Your task to perform on an android device: install app "Google Play services" Image 0: 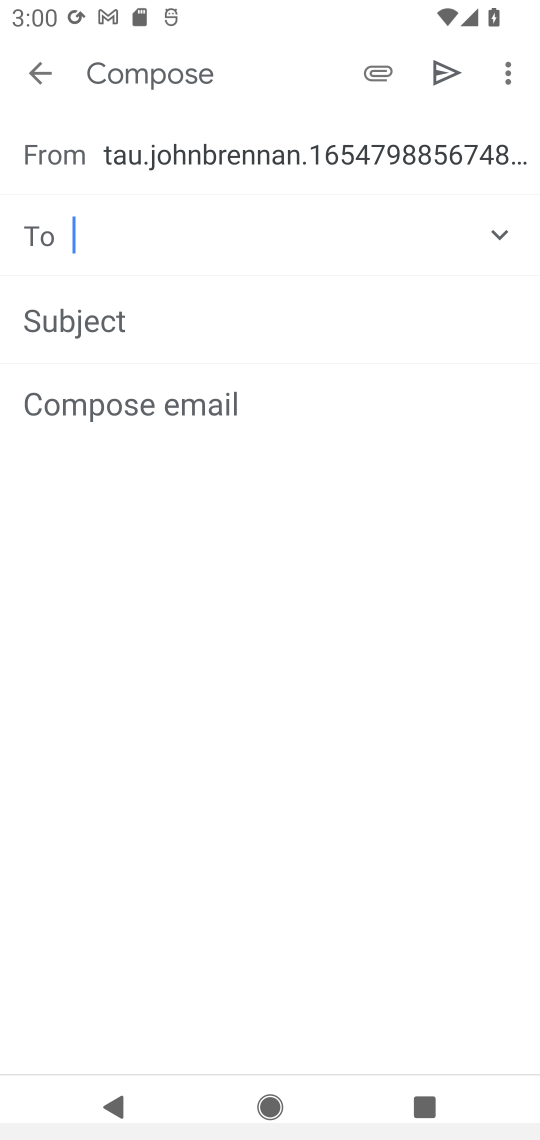
Step 0: press home button
Your task to perform on an android device: install app "Google Play services" Image 1: 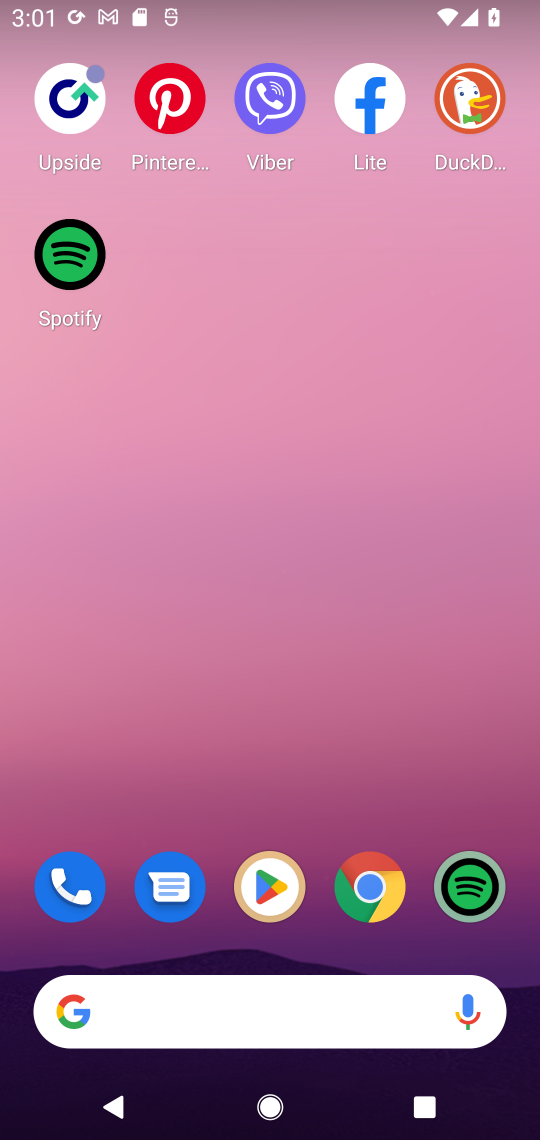
Step 1: drag from (17, 548) to (508, 572)
Your task to perform on an android device: install app "Google Play services" Image 2: 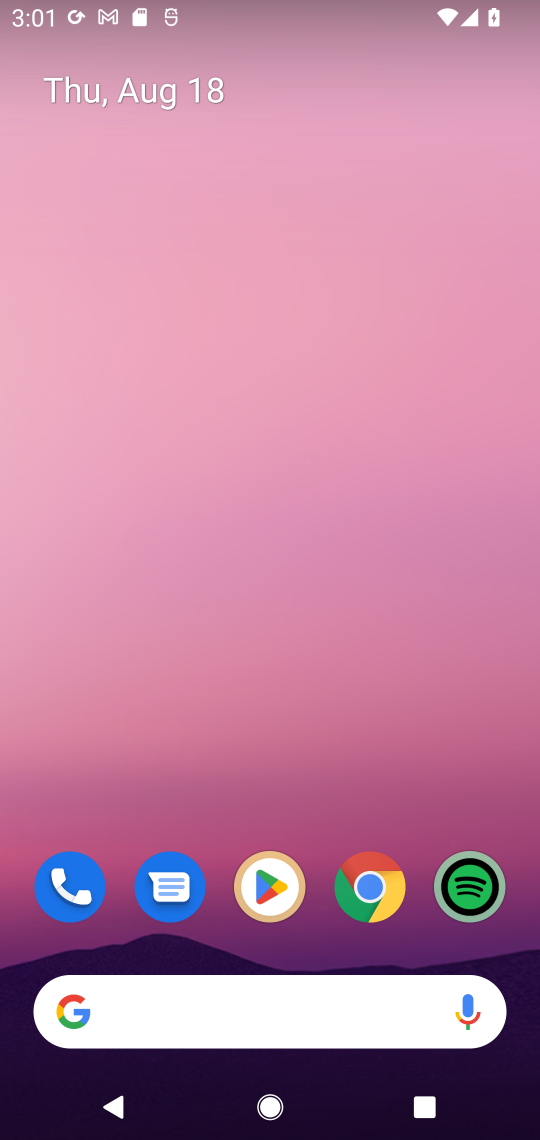
Step 2: click (259, 882)
Your task to perform on an android device: install app "Google Play services" Image 3: 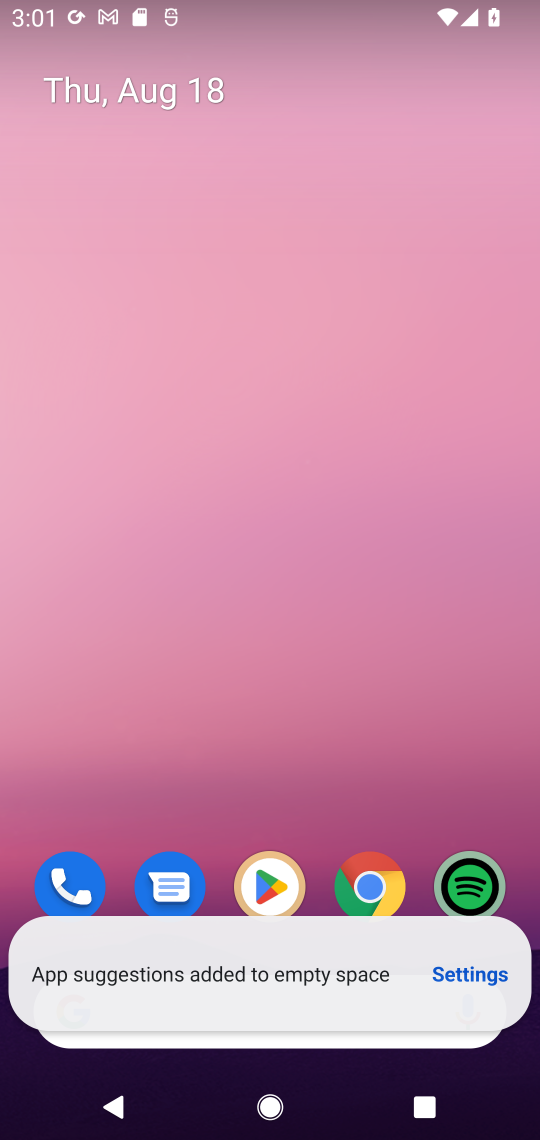
Step 3: click (267, 879)
Your task to perform on an android device: install app "Google Play services" Image 4: 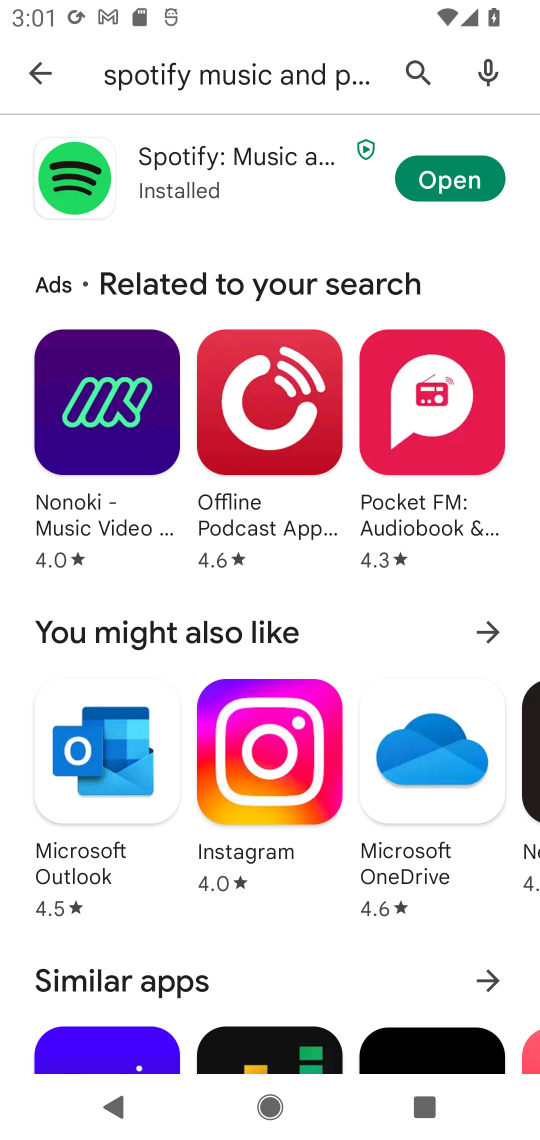
Step 4: click (413, 64)
Your task to perform on an android device: install app "Google Play services" Image 5: 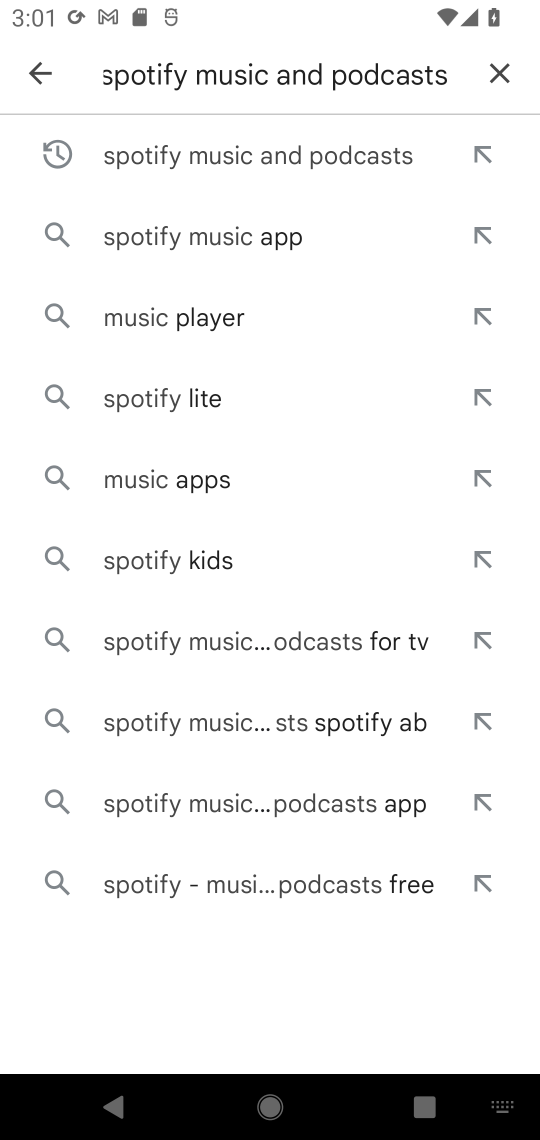
Step 5: click (498, 77)
Your task to perform on an android device: install app "Google Play services" Image 6: 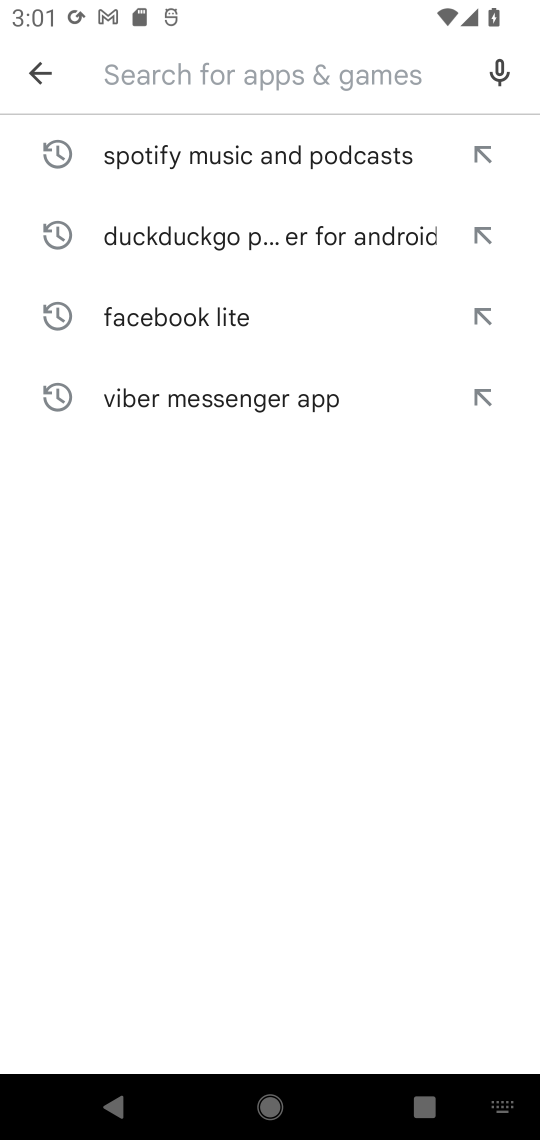
Step 6: type "Google Play services"
Your task to perform on an android device: install app "Google Play services" Image 7: 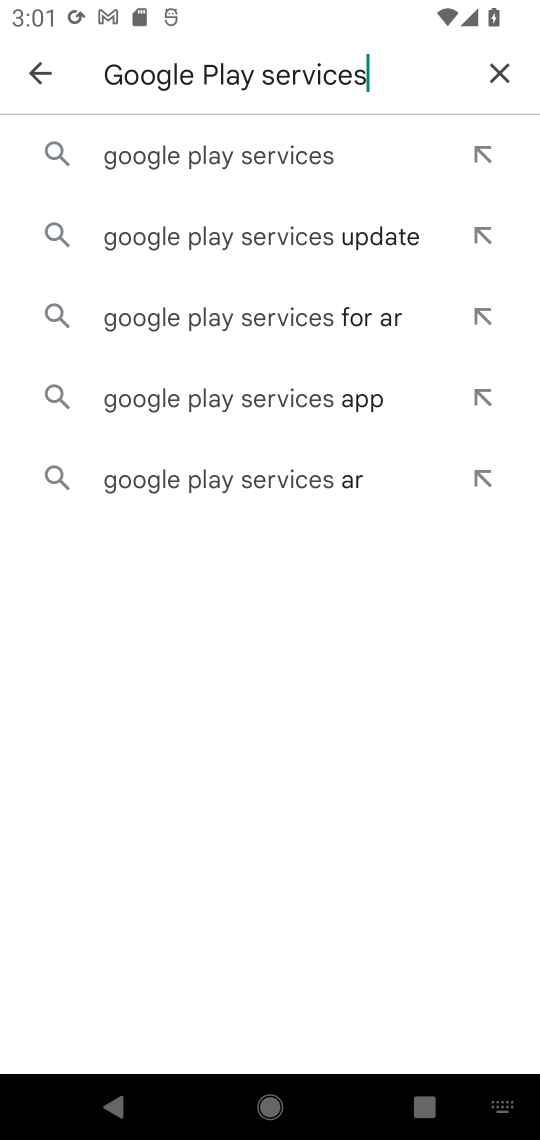
Step 7: click (281, 150)
Your task to perform on an android device: install app "Google Play services" Image 8: 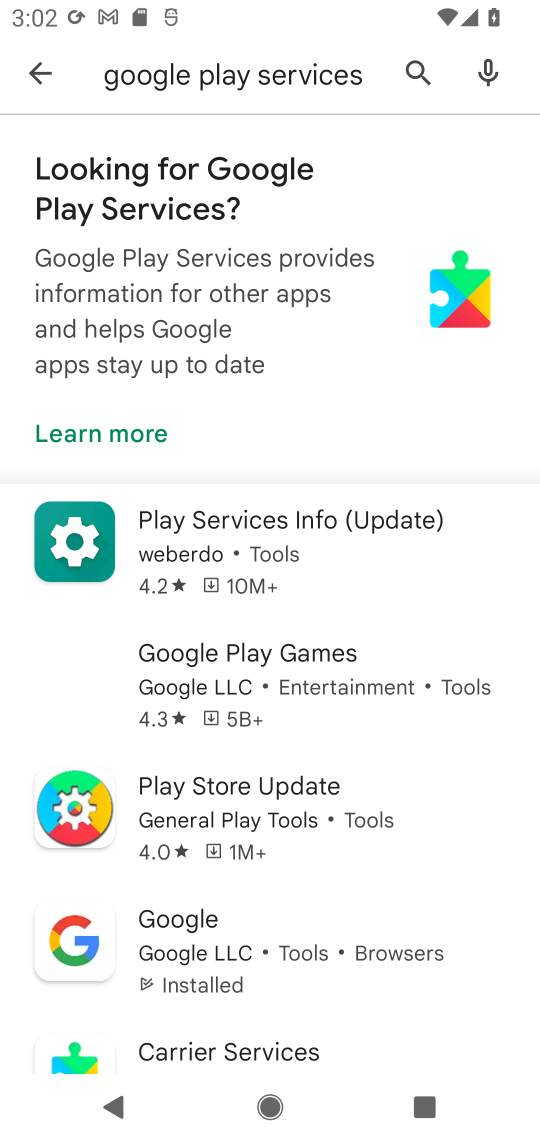
Step 8: task complete